Your task to perform on an android device: turn on notifications settings in the gmail app Image 0: 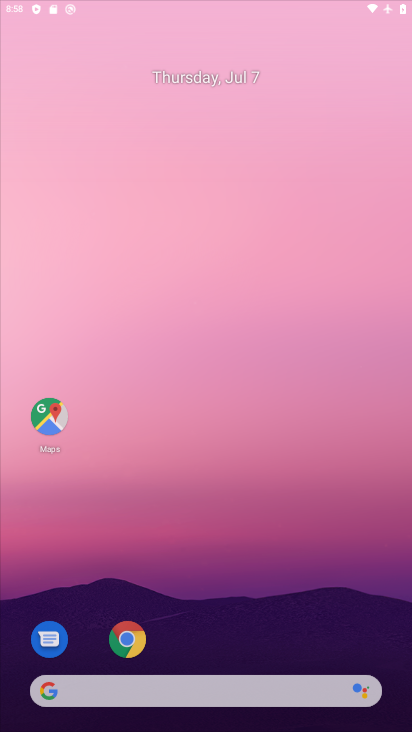
Step 0: drag from (261, 264) to (251, 181)
Your task to perform on an android device: turn on notifications settings in the gmail app Image 1: 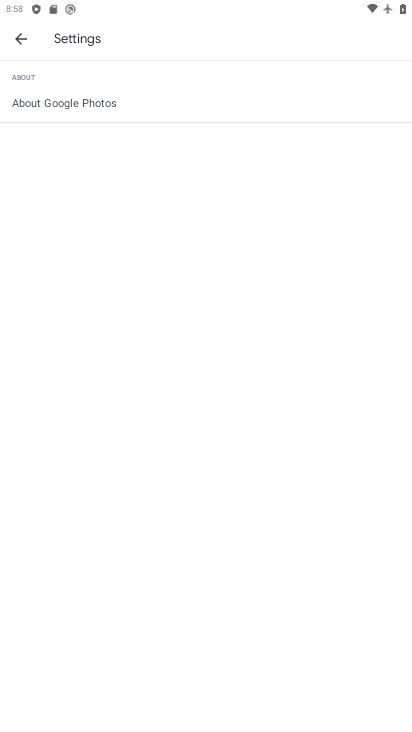
Step 1: click (28, 34)
Your task to perform on an android device: turn on notifications settings in the gmail app Image 2: 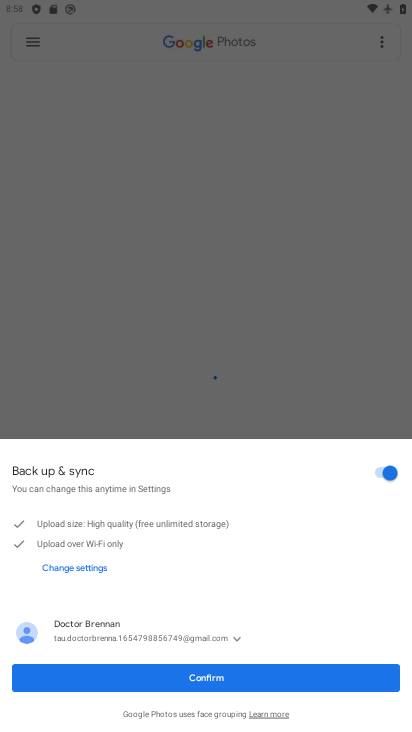
Step 2: click (163, 203)
Your task to perform on an android device: turn on notifications settings in the gmail app Image 3: 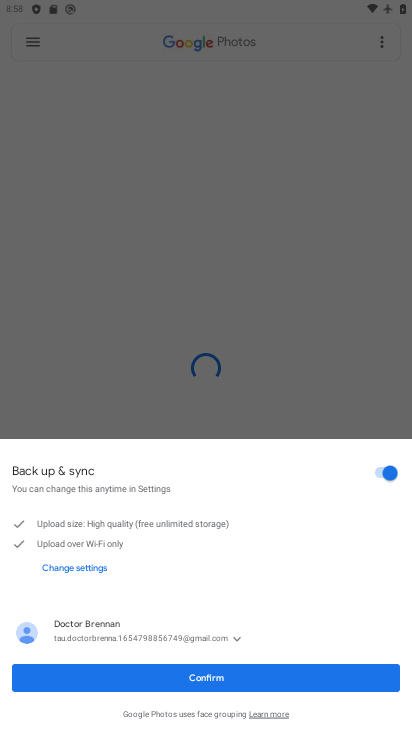
Step 3: click (163, 203)
Your task to perform on an android device: turn on notifications settings in the gmail app Image 4: 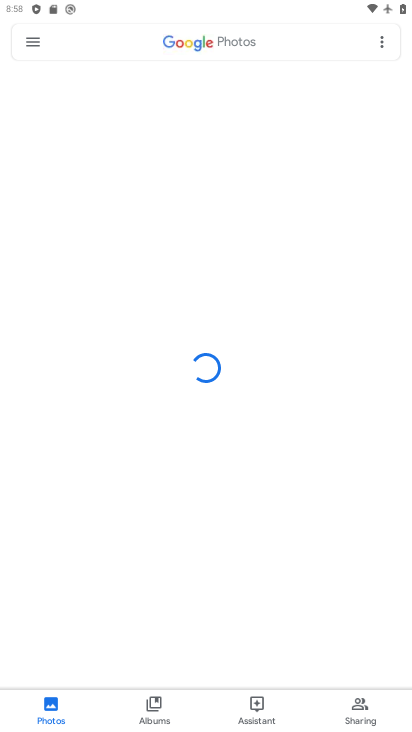
Step 4: click (163, 203)
Your task to perform on an android device: turn on notifications settings in the gmail app Image 5: 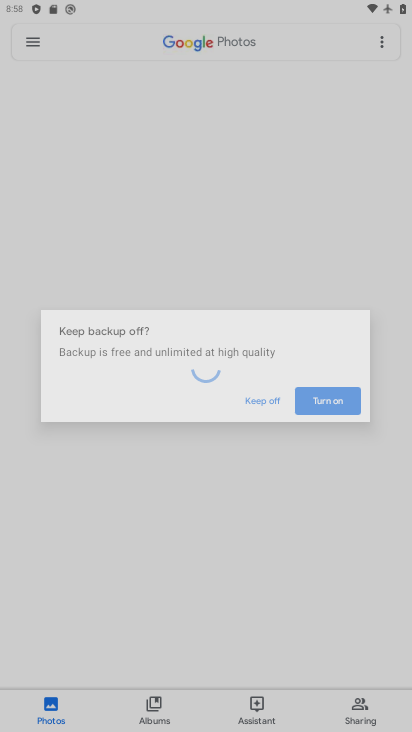
Step 5: click (163, 203)
Your task to perform on an android device: turn on notifications settings in the gmail app Image 6: 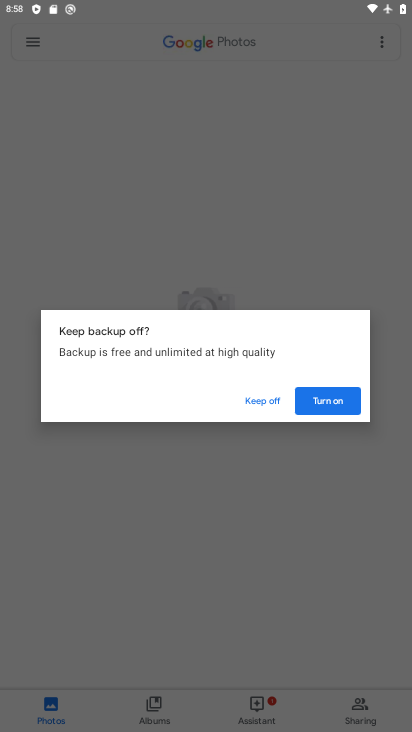
Step 6: click (284, 389)
Your task to perform on an android device: turn on notifications settings in the gmail app Image 7: 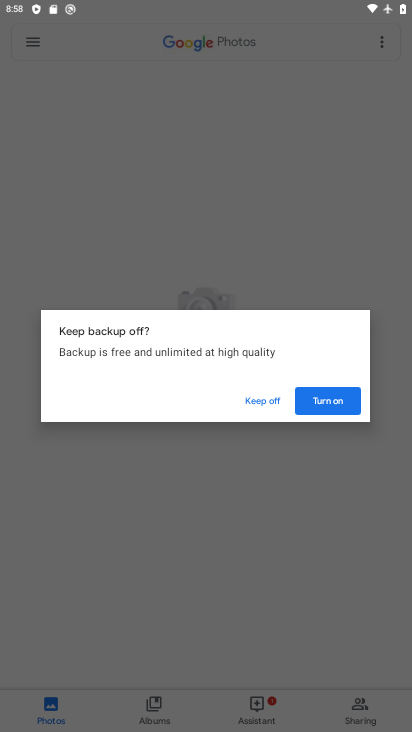
Step 7: click (277, 394)
Your task to perform on an android device: turn on notifications settings in the gmail app Image 8: 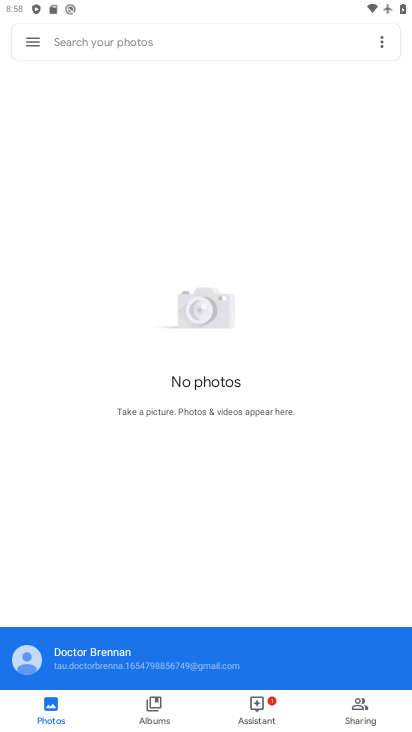
Step 8: click (23, 34)
Your task to perform on an android device: turn on notifications settings in the gmail app Image 9: 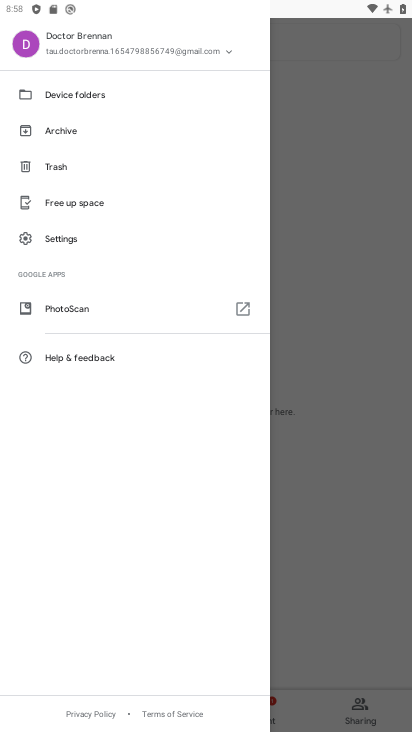
Step 9: click (58, 240)
Your task to perform on an android device: turn on notifications settings in the gmail app Image 10: 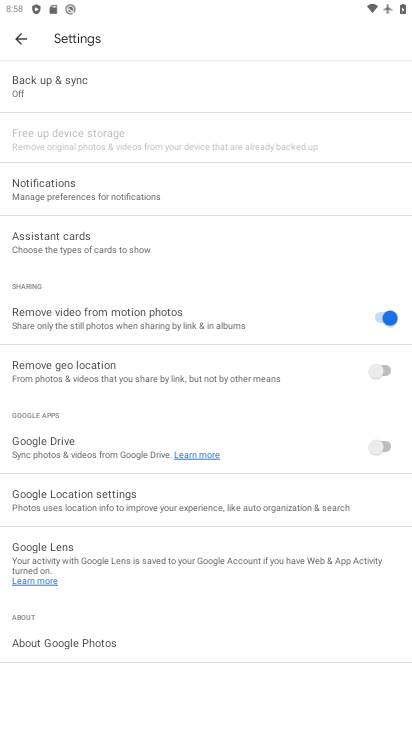
Step 10: click (7, 47)
Your task to perform on an android device: turn on notifications settings in the gmail app Image 11: 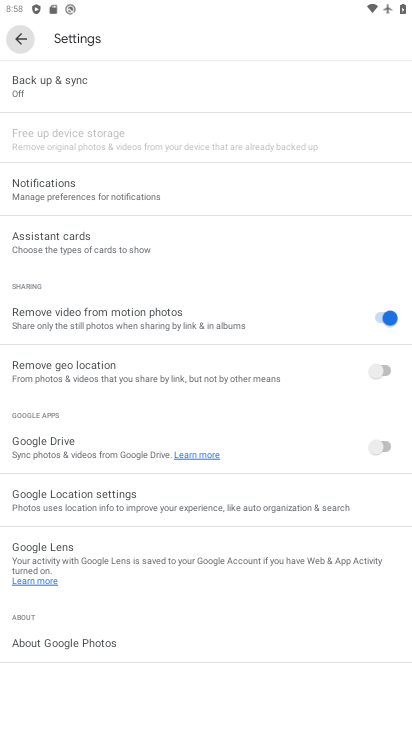
Step 11: click (8, 47)
Your task to perform on an android device: turn on notifications settings in the gmail app Image 12: 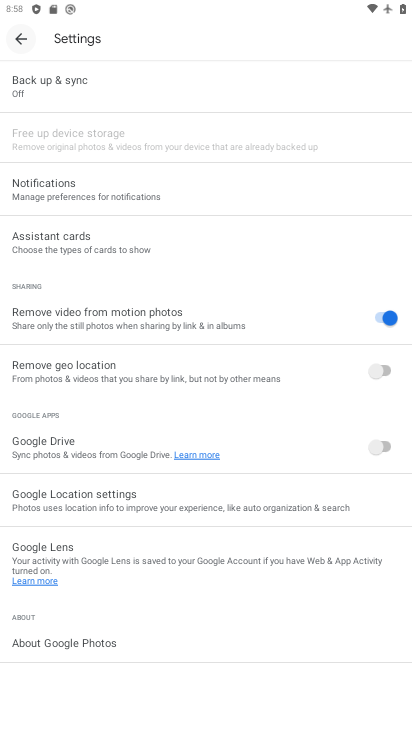
Step 12: click (8, 47)
Your task to perform on an android device: turn on notifications settings in the gmail app Image 13: 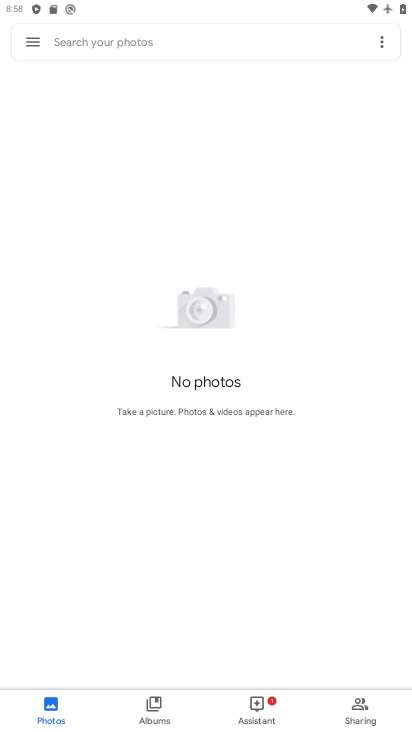
Step 13: press back button
Your task to perform on an android device: turn on notifications settings in the gmail app Image 14: 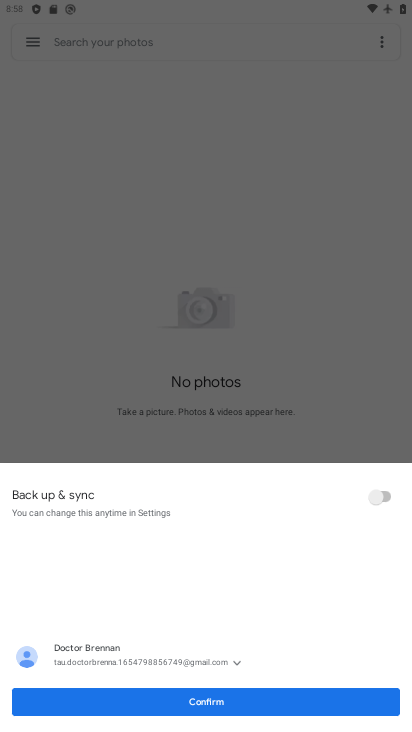
Step 14: press home button
Your task to perform on an android device: turn on notifications settings in the gmail app Image 15: 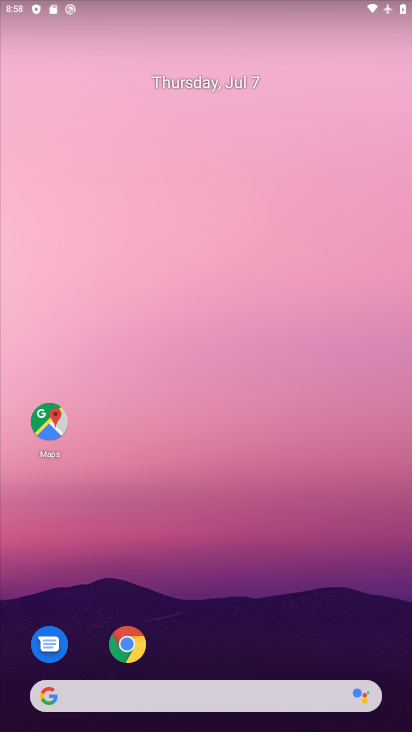
Step 15: drag from (269, 692) to (206, 240)
Your task to perform on an android device: turn on notifications settings in the gmail app Image 16: 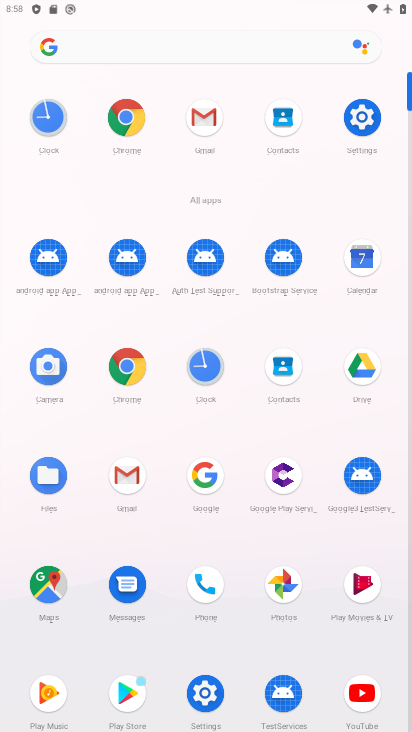
Step 16: click (137, 479)
Your task to perform on an android device: turn on notifications settings in the gmail app Image 17: 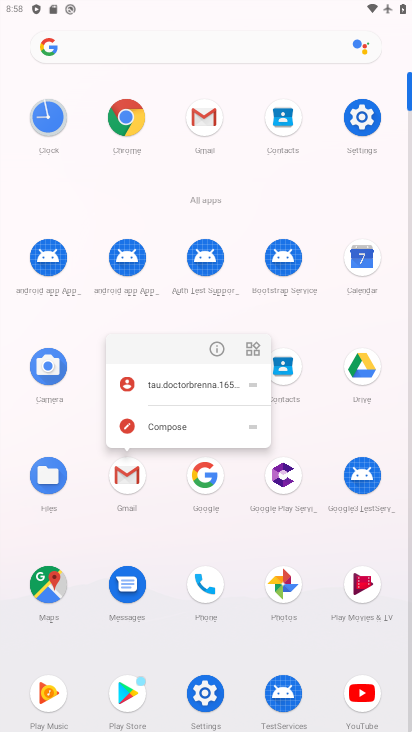
Step 17: click (132, 469)
Your task to perform on an android device: turn on notifications settings in the gmail app Image 18: 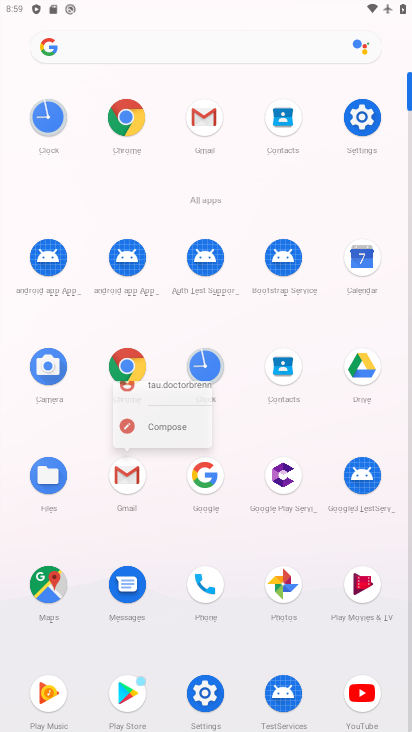
Step 18: click (132, 469)
Your task to perform on an android device: turn on notifications settings in the gmail app Image 19: 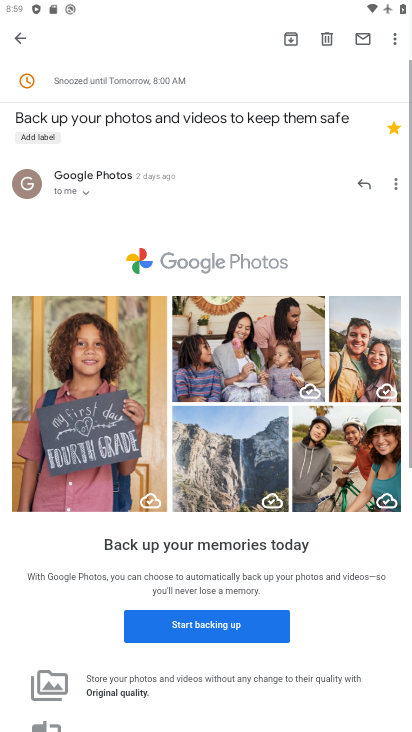
Step 19: click (131, 470)
Your task to perform on an android device: turn on notifications settings in the gmail app Image 20: 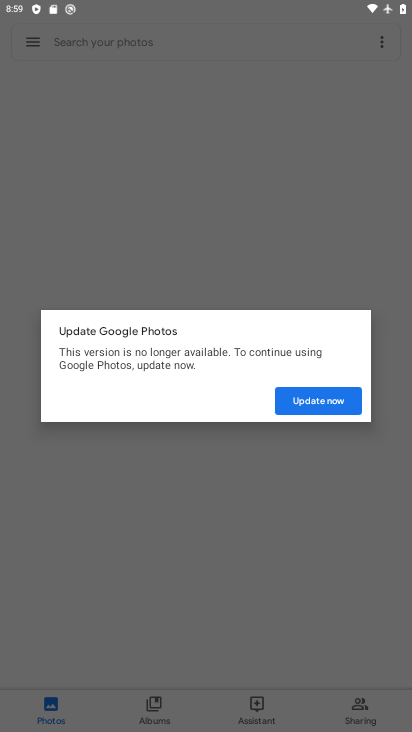
Step 20: task complete